Your task to perform on an android device: Show me recent news Image 0: 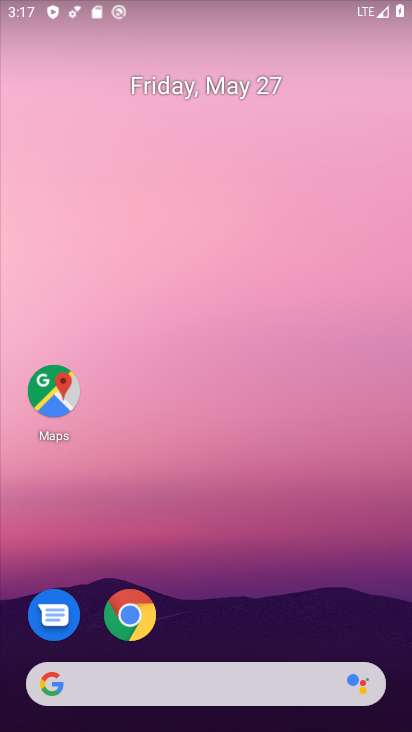
Step 0: drag from (270, 669) to (211, 306)
Your task to perform on an android device: Show me recent news Image 1: 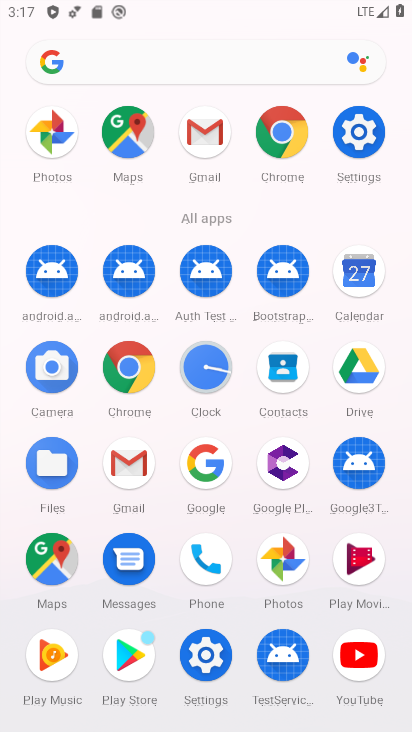
Step 1: click (288, 125)
Your task to perform on an android device: Show me recent news Image 2: 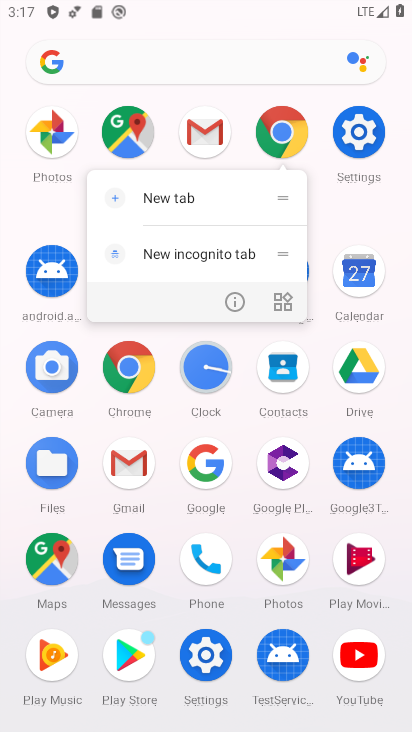
Step 2: click (288, 127)
Your task to perform on an android device: Show me recent news Image 3: 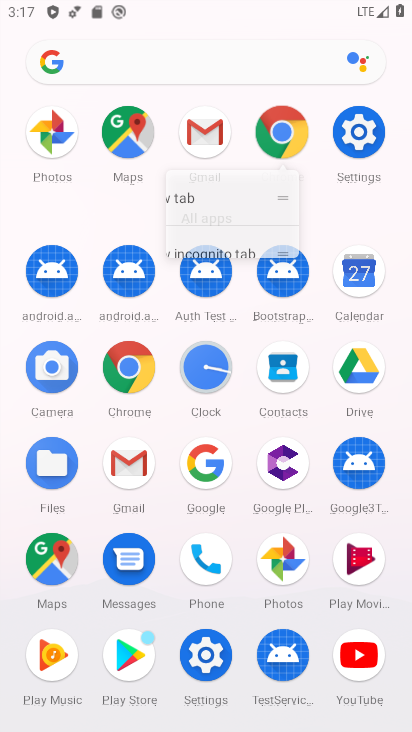
Step 3: click (288, 127)
Your task to perform on an android device: Show me recent news Image 4: 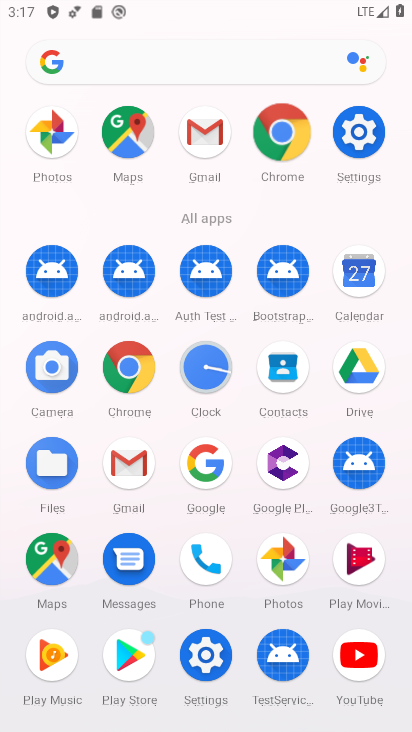
Step 4: click (288, 127)
Your task to perform on an android device: Show me recent news Image 5: 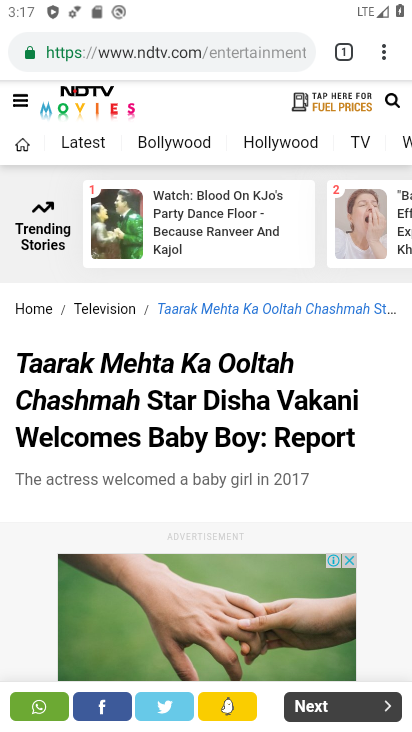
Step 5: click (83, 147)
Your task to perform on an android device: Show me recent news Image 6: 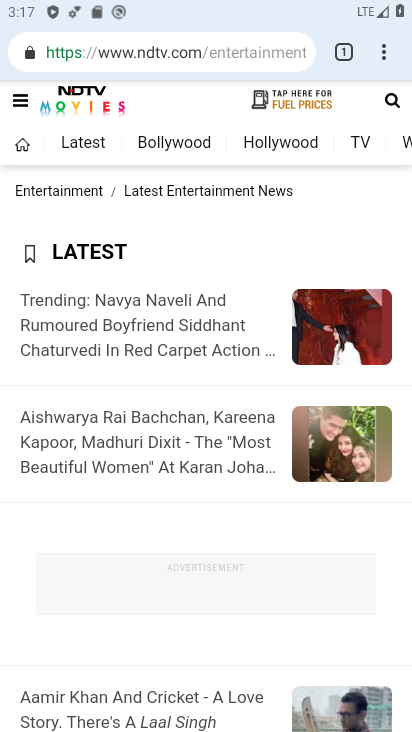
Step 6: task complete